Your task to perform on an android device: Open Maps and search for coffee Image 0: 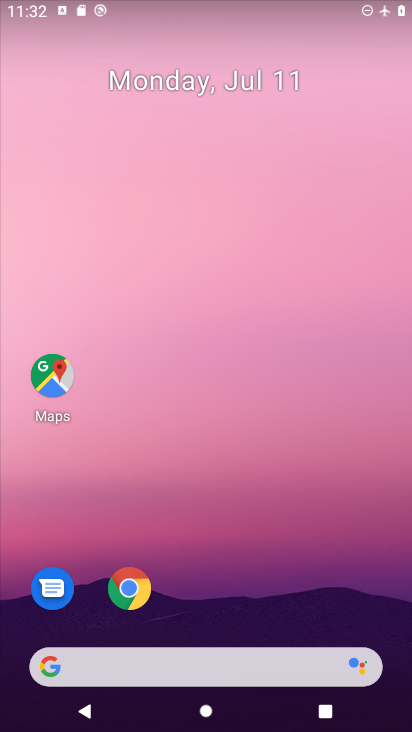
Step 0: drag from (381, 603) to (239, 21)
Your task to perform on an android device: Open Maps and search for coffee Image 1: 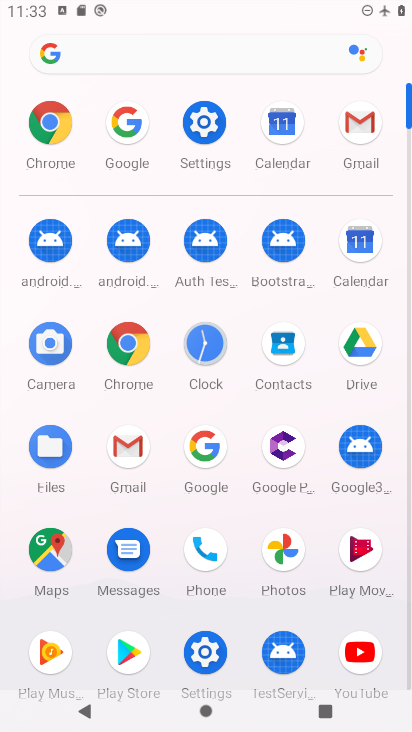
Step 1: click (48, 566)
Your task to perform on an android device: Open Maps and search for coffee Image 2: 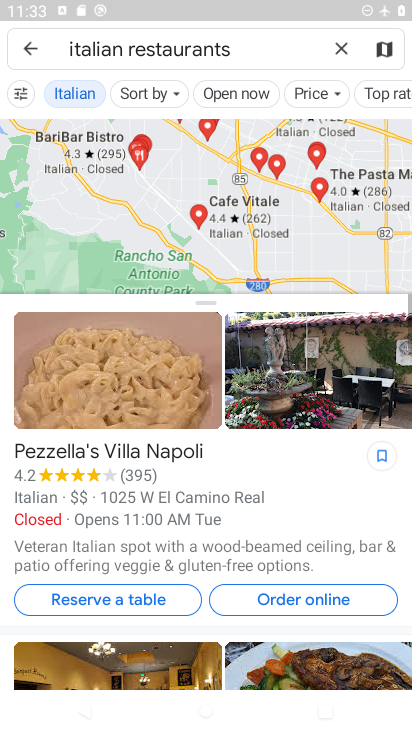
Step 2: click (337, 47)
Your task to perform on an android device: Open Maps and search for coffee Image 3: 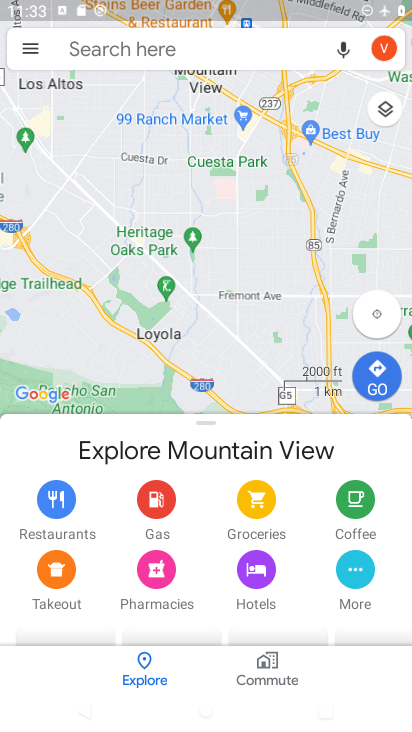
Step 3: click (137, 44)
Your task to perform on an android device: Open Maps and search for coffee Image 4: 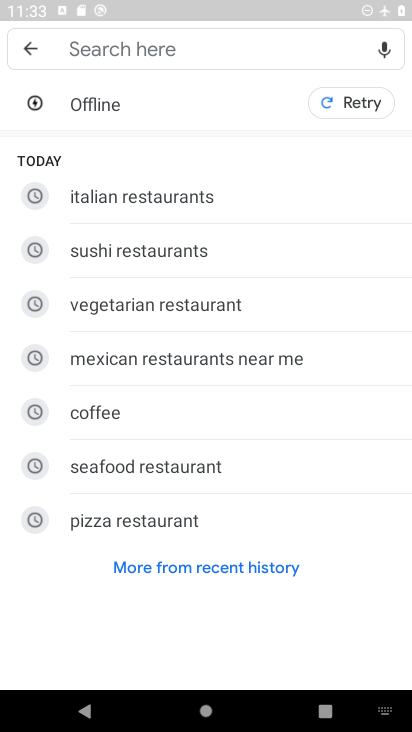
Step 4: click (126, 409)
Your task to perform on an android device: Open Maps and search for coffee Image 5: 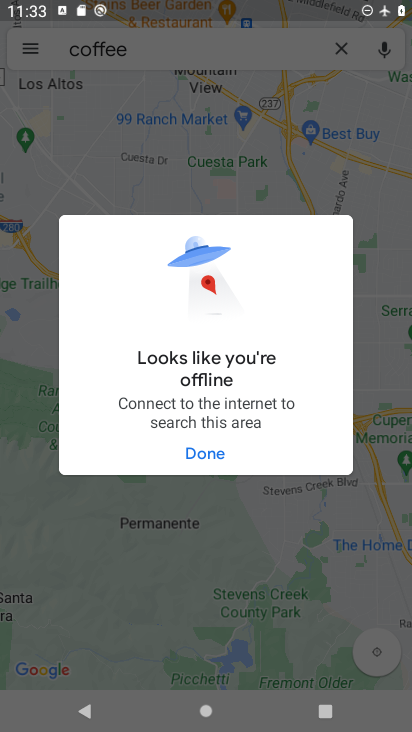
Step 5: task complete